Your task to perform on an android device: open a bookmark in the chrome app Image 0: 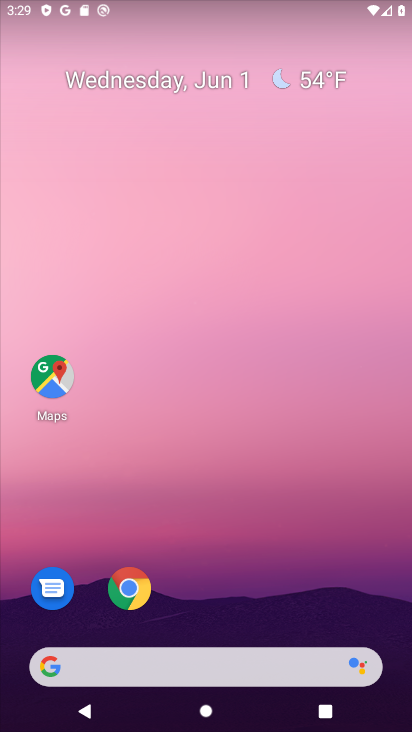
Step 0: click (132, 588)
Your task to perform on an android device: open a bookmark in the chrome app Image 1: 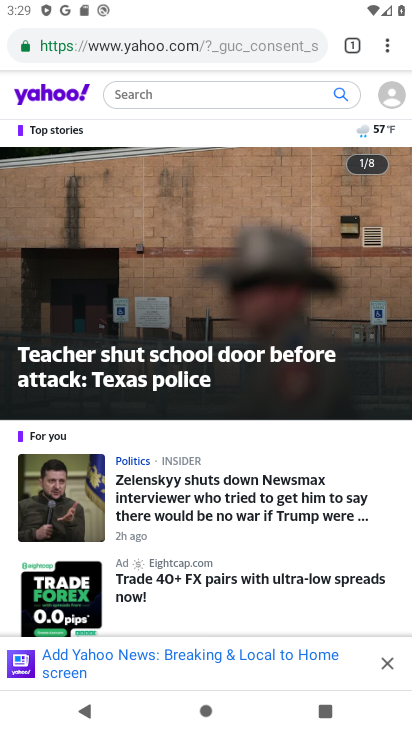
Step 1: click (387, 38)
Your task to perform on an android device: open a bookmark in the chrome app Image 2: 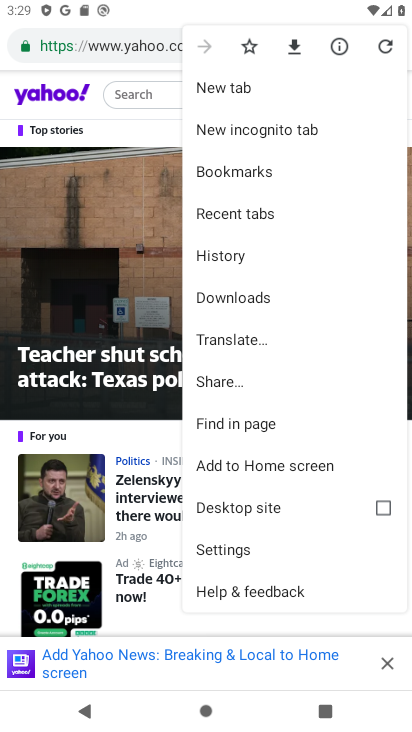
Step 2: click (254, 178)
Your task to perform on an android device: open a bookmark in the chrome app Image 3: 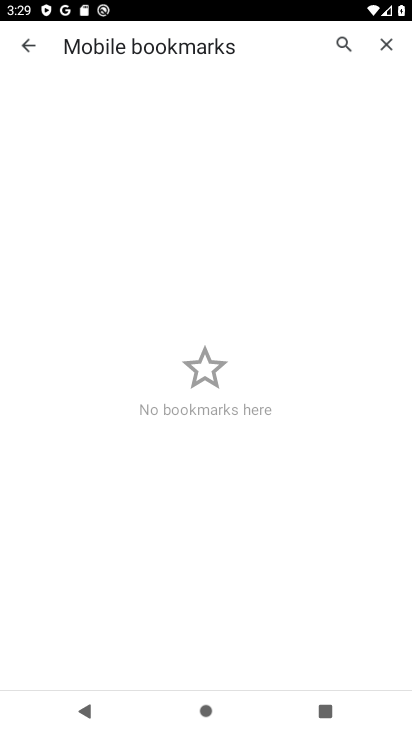
Step 3: task complete